Your task to perform on an android device: star an email in the gmail app Image 0: 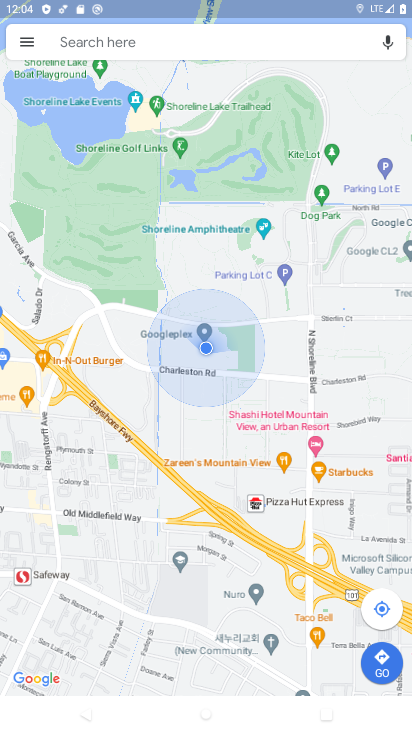
Step 0: press home button
Your task to perform on an android device: star an email in the gmail app Image 1: 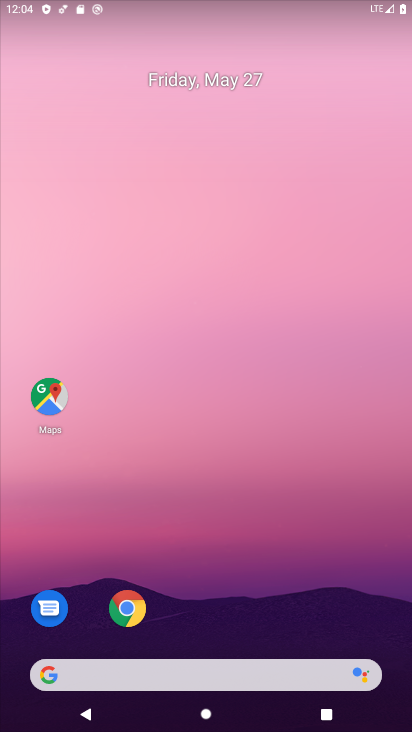
Step 1: drag from (124, 665) to (260, 88)
Your task to perform on an android device: star an email in the gmail app Image 2: 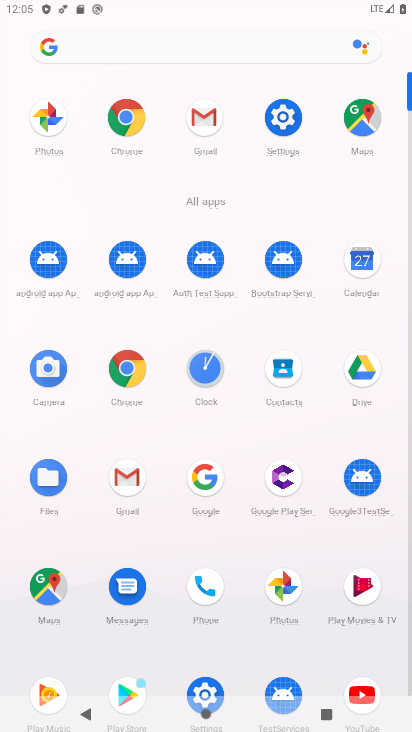
Step 2: click (202, 120)
Your task to perform on an android device: star an email in the gmail app Image 3: 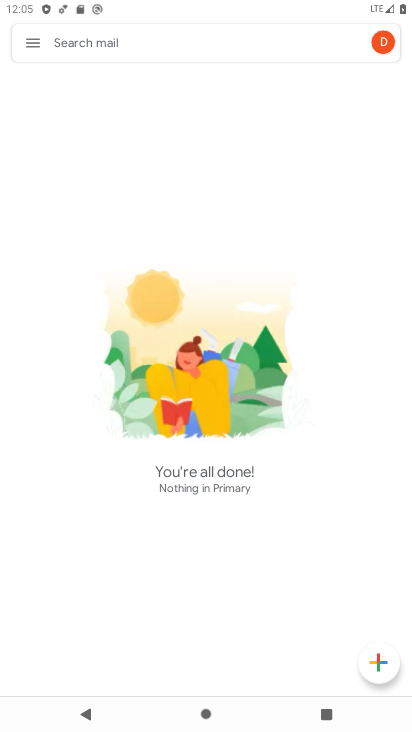
Step 3: task complete